Your task to perform on an android device: Open the map Image 0: 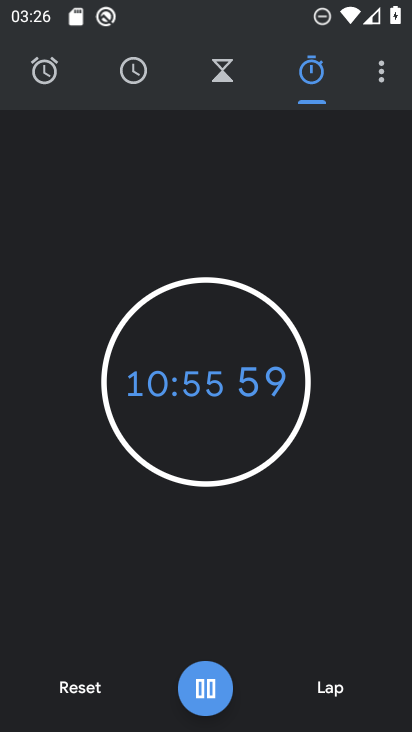
Step 0: press home button
Your task to perform on an android device: Open the map Image 1: 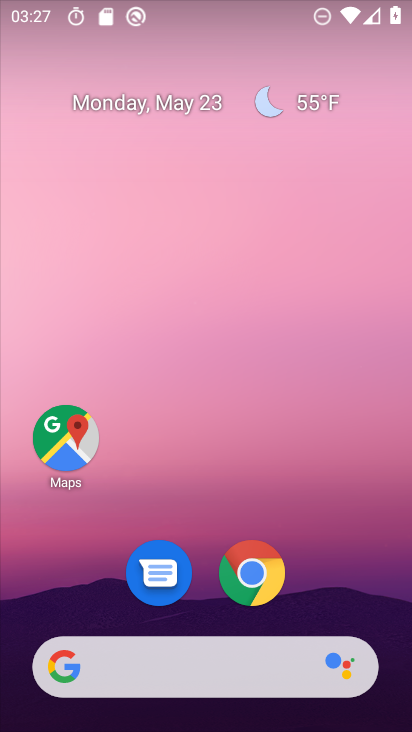
Step 1: click (77, 436)
Your task to perform on an android device: Open the map Image 2: 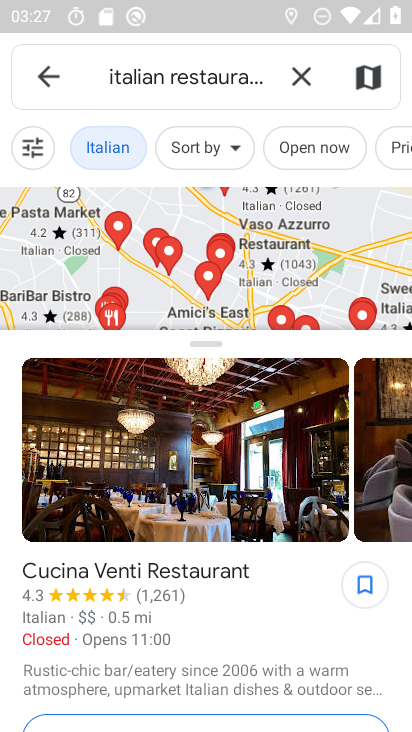
Step 2: task complete